Your task to perform on an android device: Go to CNN.com Image 0: 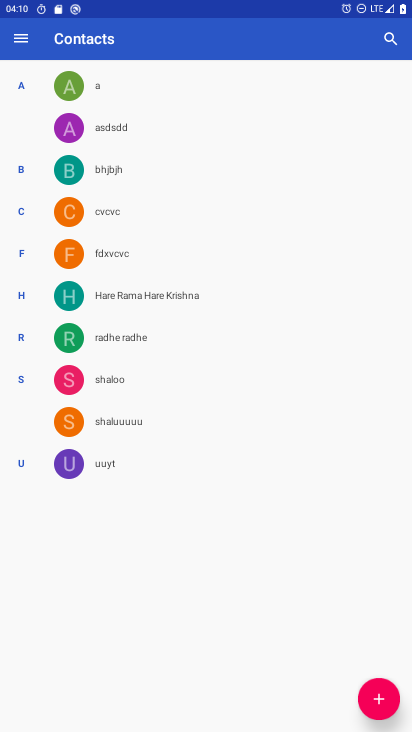
Step 0: press home button
Your task to perform on an android device: Go to CNN.com Image 1: 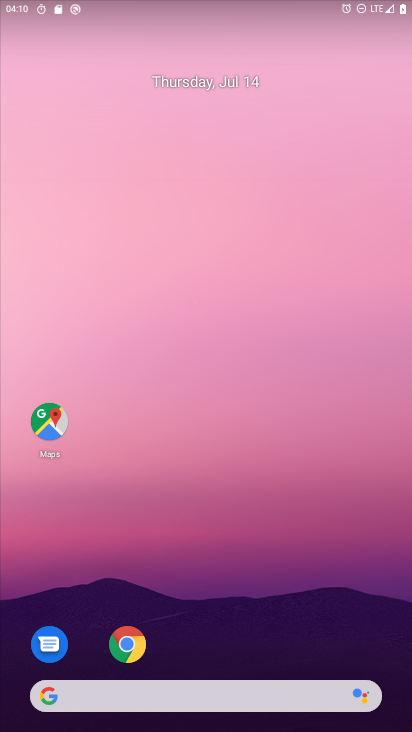
Step 1: drag from (271, 657) to (292, 256)
Your task to perform on an android device: Go to CNN.com Image 2: 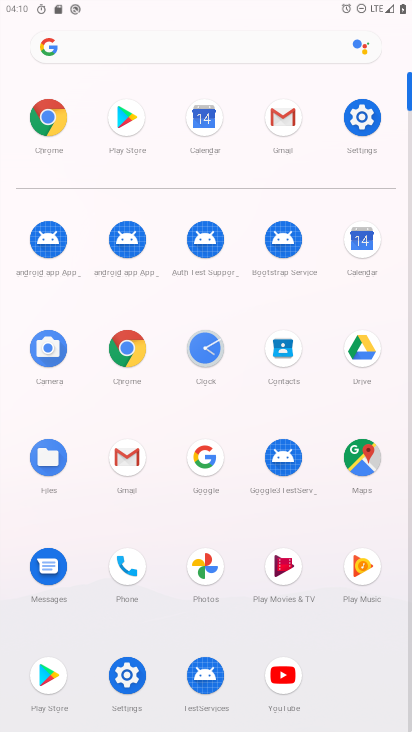
Step 2: click (43, 113)
Your task to perform on an android device: Go to CNN.com Image 3: 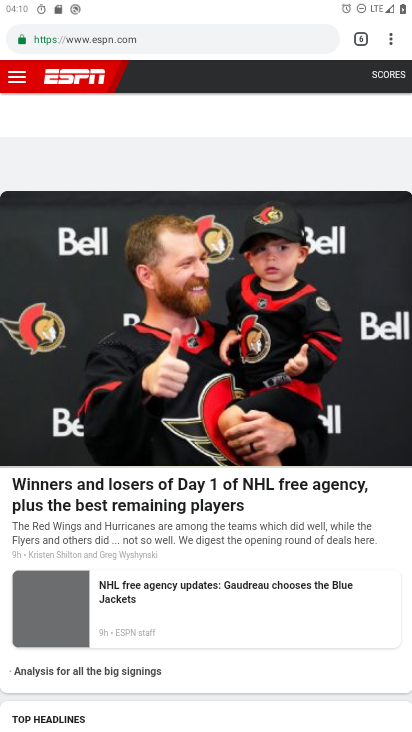
Step 3: click (192, 106)
Your task to perform on an android device: Go to CNN.com Image 4: 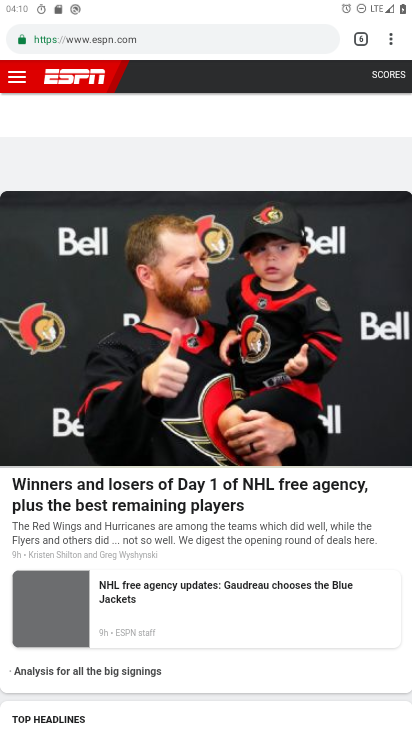
Step 4: click (232, 33)
Your task to perform on an android device: Go to CNN.com Image 5: 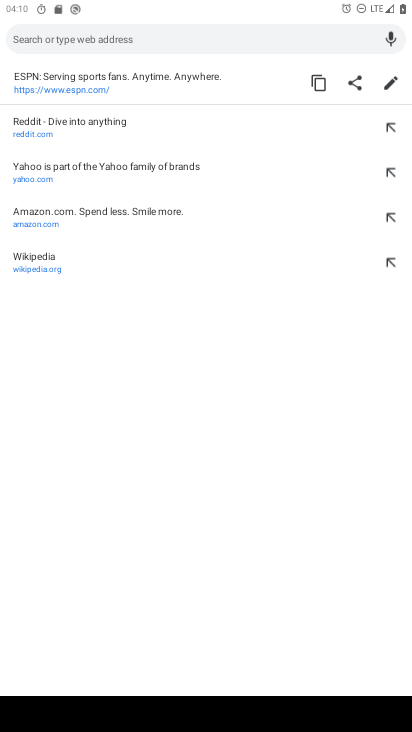
Step 5: type "cnn.com"
Your task to perform on an android device: Go to CNN.com Image 6: 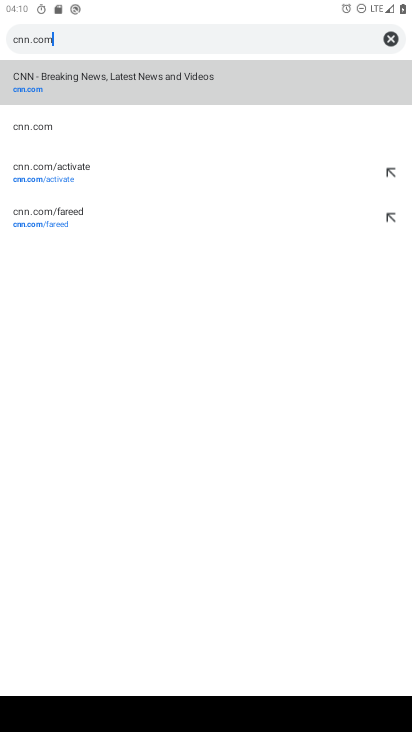
Step 6: press enter
Your task to perform on an android device: Go to CNN.com Image 7: 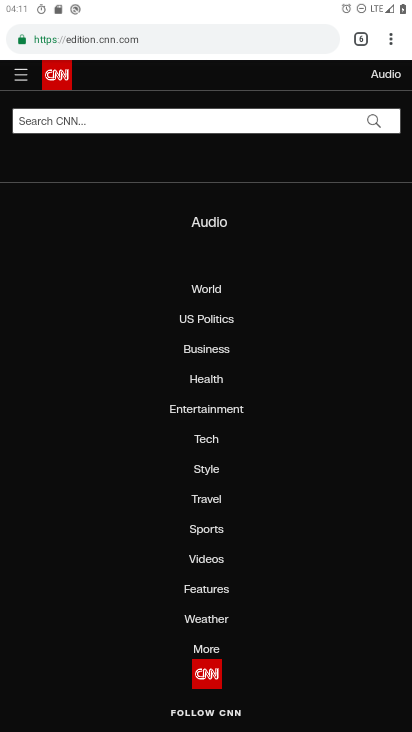
Step 7: task complete